Your task to perform on an android device: Go to Yahoo.com Image 0: 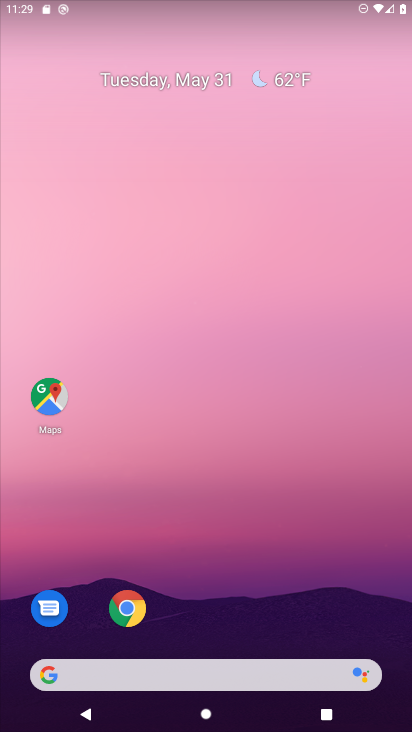
Step 0: drag from (244, 515) to (258, 65)
Your task to perform on an android device: Go to Yahoo.com Image 1: 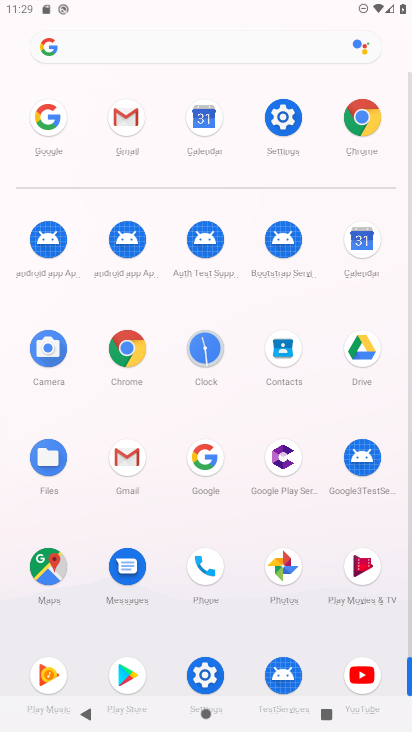
Step 1: click (111, 376)
Your task to perform on an android device: Go to Yahoo.com Image 2: 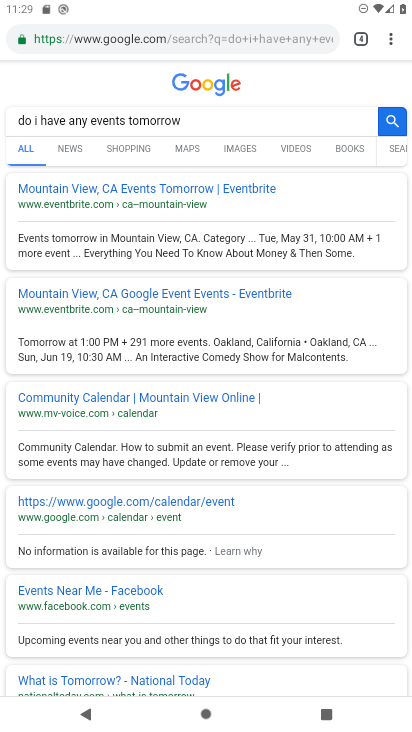
Step 2: click (167, 42)
Your task to perform on an android device: Go to Yahoo.com Image 3: 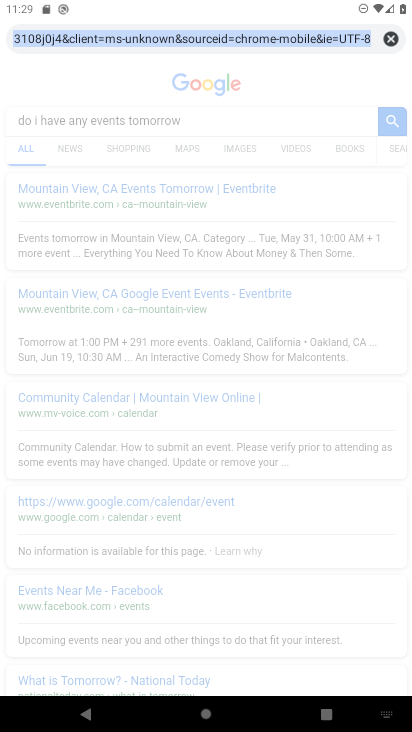
Step 3: click (402, 32)
Your task to perform on an android device: Go to Yahoo.com Image 4: 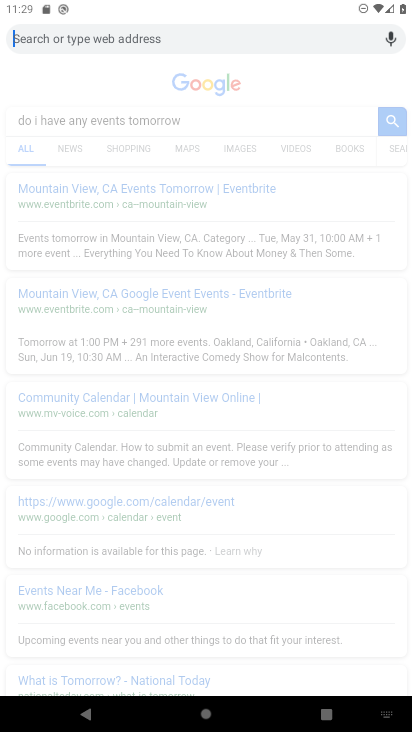
Step 4: type "yahoo.com"
Your task to perform on an android device: Go to Yahoo.com Image 5: 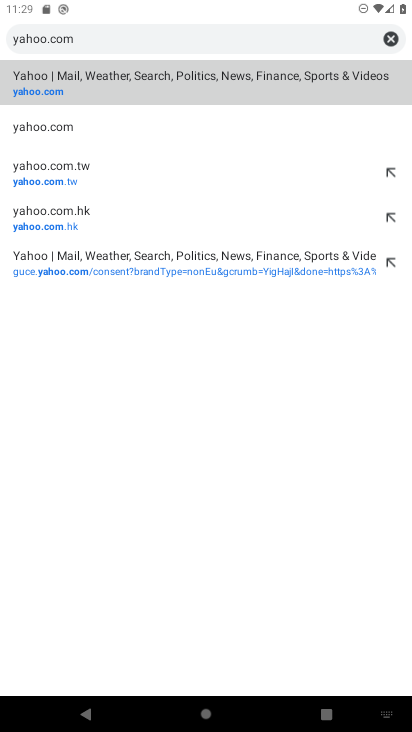
Step 5: click (259, 82)
Your task to perform on an android device: Go to Yahoo.com Image 6: 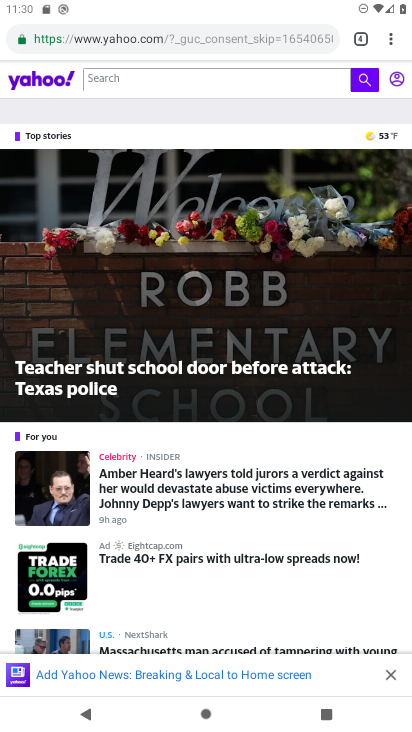
Step 6: task complete